Your task to perform on an android device: Go to sound settings Image 0: 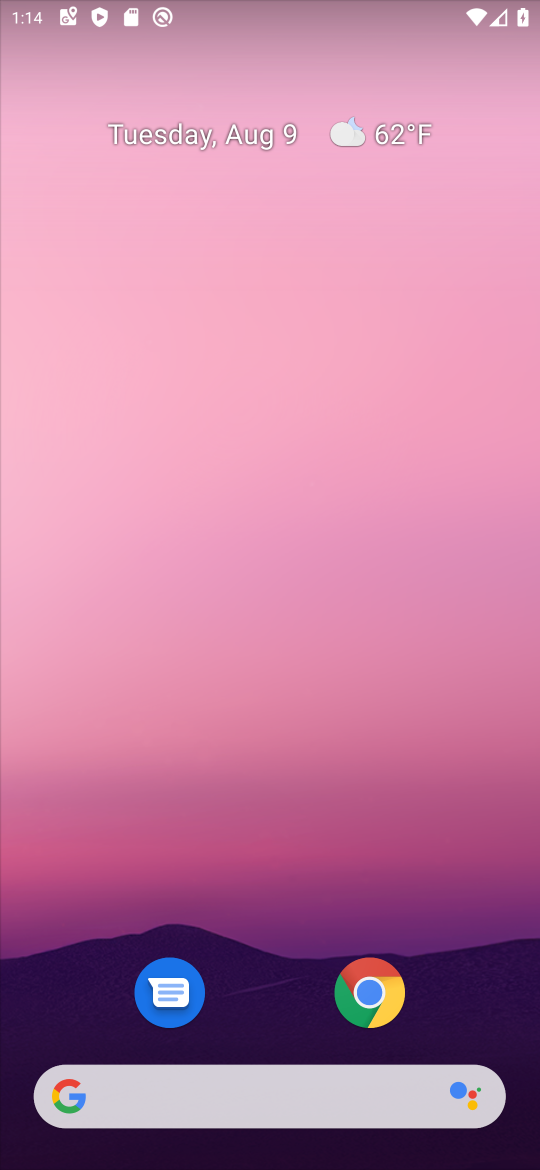
Step 0: drag from (338, 665) to (376, 97)
Your task to perform on an android device: Go to sound settings Image 1: 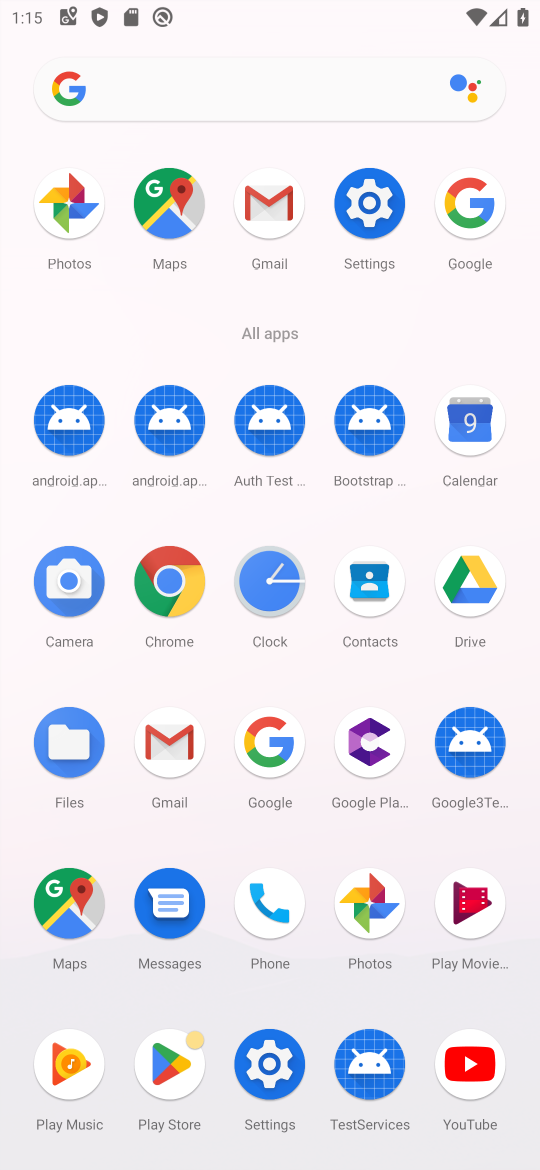
Step 1: drag from (172, 757) to (85, 154)
Your task to perform on an android device: Go to sound settings Image 2: 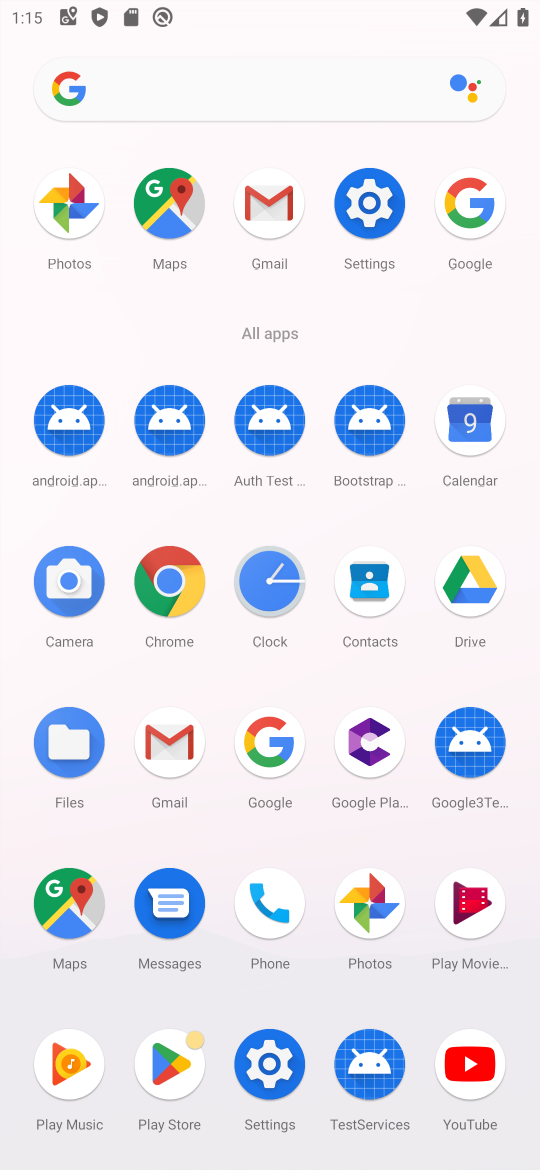
Step 2: click (367, 216)
Your task to perform on an android device: Go to sound settings Image 3: 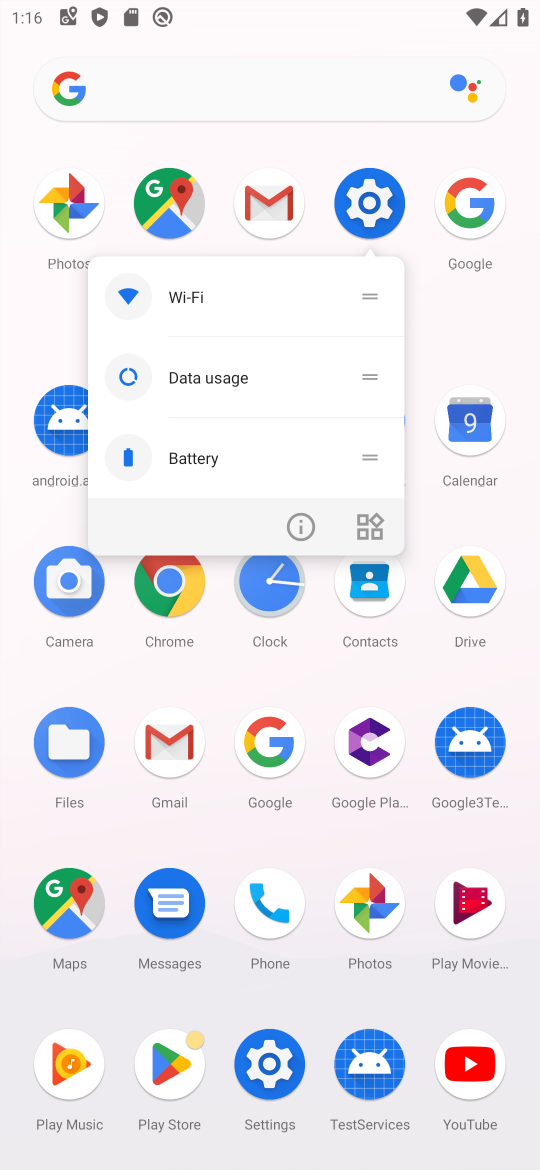
Step 3: drag from (201, 790) to (238, 390)
Your task to perform on an android device: Go to sound settings Image 4: 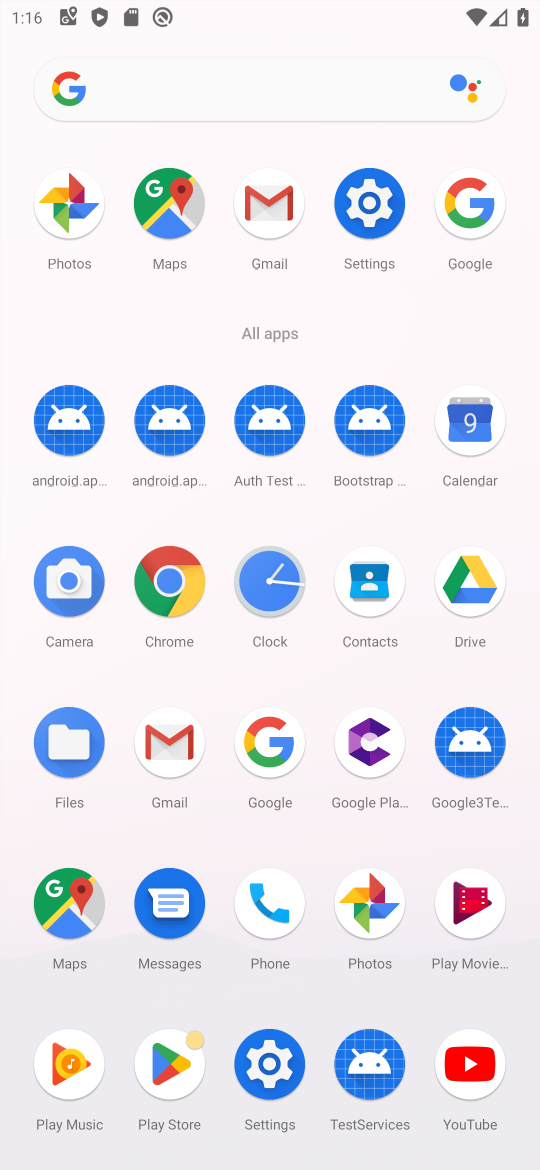
Step 4: drag from (277, 868) to (309, 408)
Your task to perform on an android device: Go to sound settings Image 5: 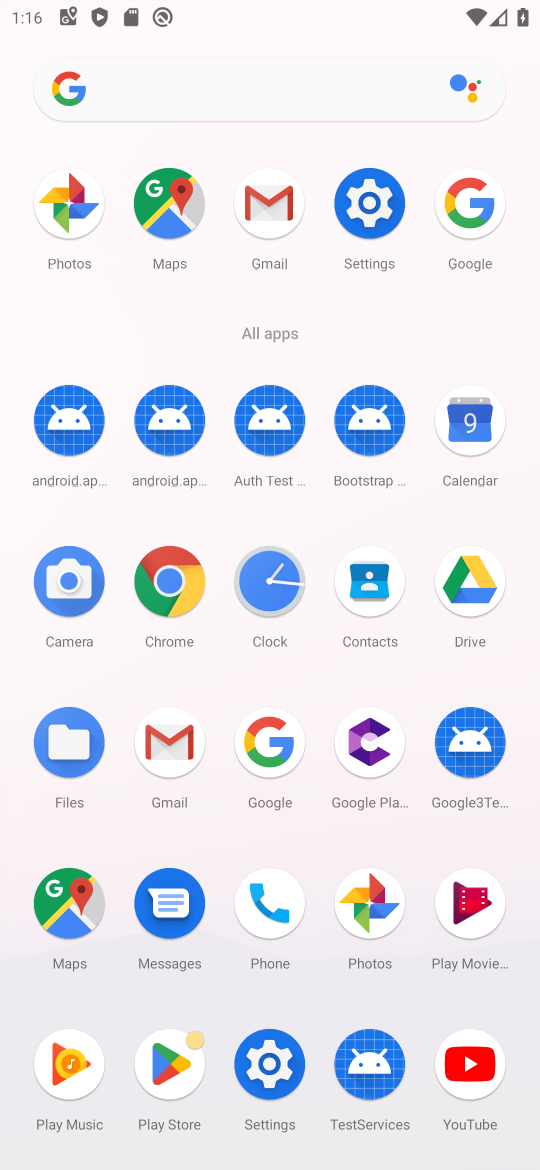
Step 5: click (379, 220)
Your task to perform on an android device: Go to sound settings Image 6: 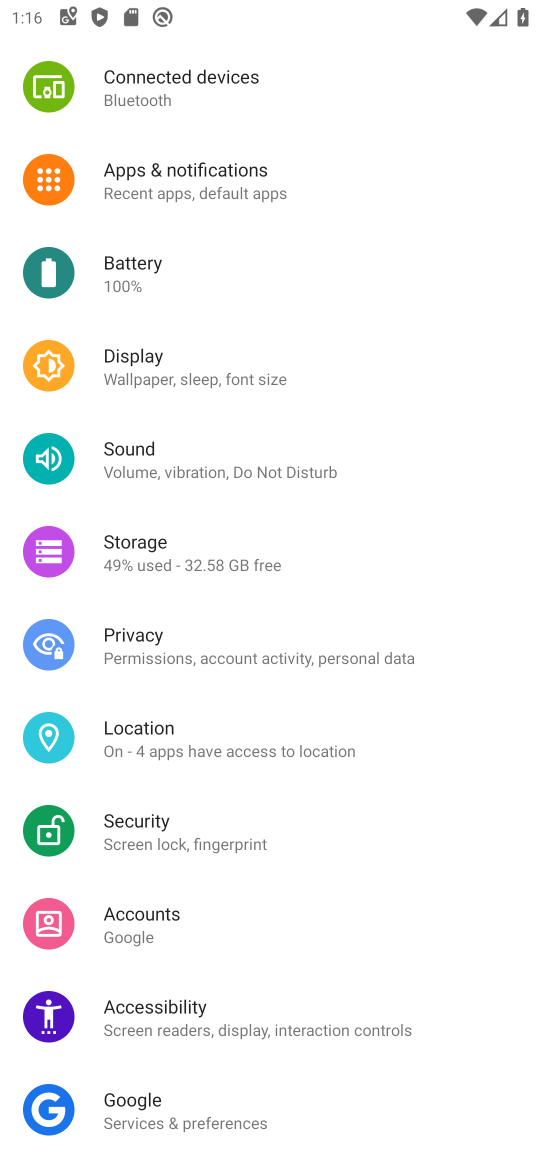
Step 6: click (166, 482)
Your task to perform on an android device: Go to sound settings Image 7: 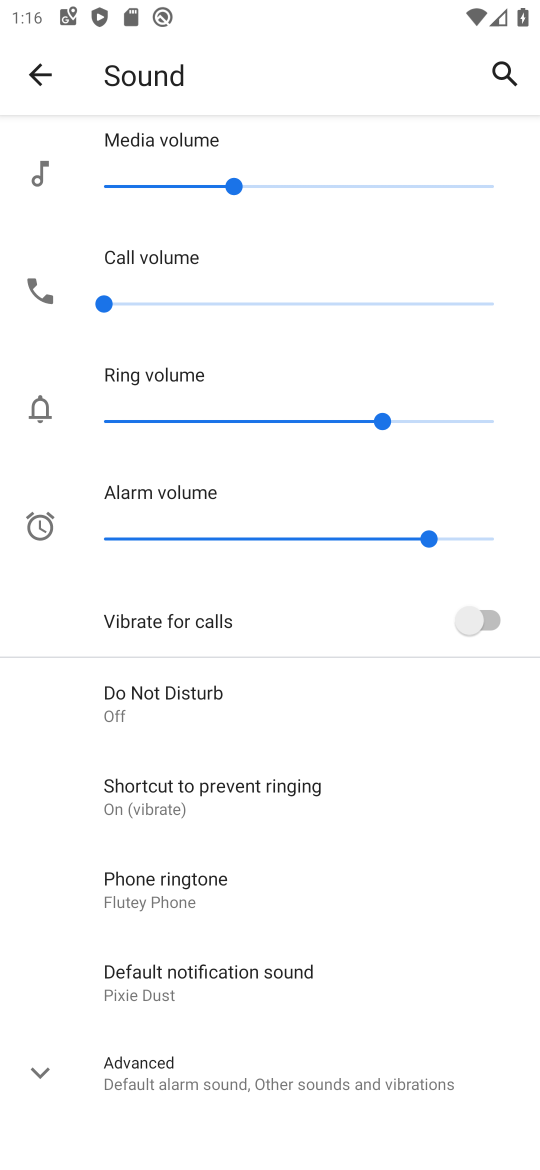
Step 7: task complete